Your task to perform on an android device: Add "razer blade" to the cart on walmart, then select checkout. Image 0: 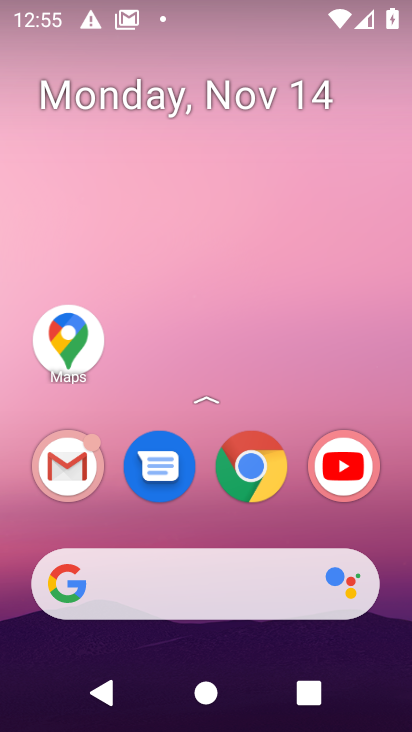
Step 0: click (259, 451)
Your task to perform on an android device: Add "razer blade" to the cart on walmart, then select checkout. Image 1: 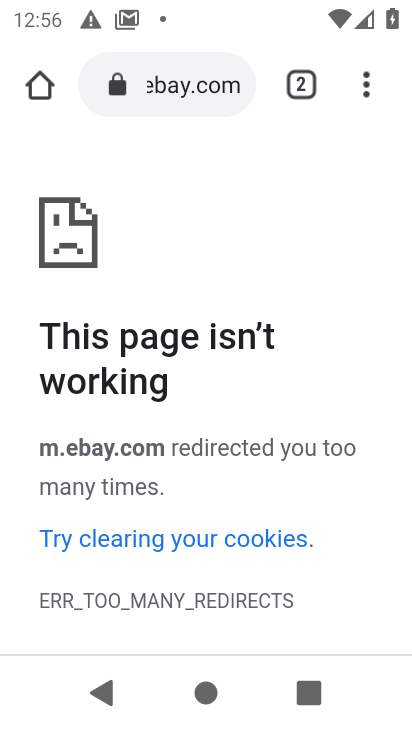
Step 1: click (215, 82)
Your task to perform on an android device: Add "razer blade" to the cart on walmart, then select checkout. Image 2: 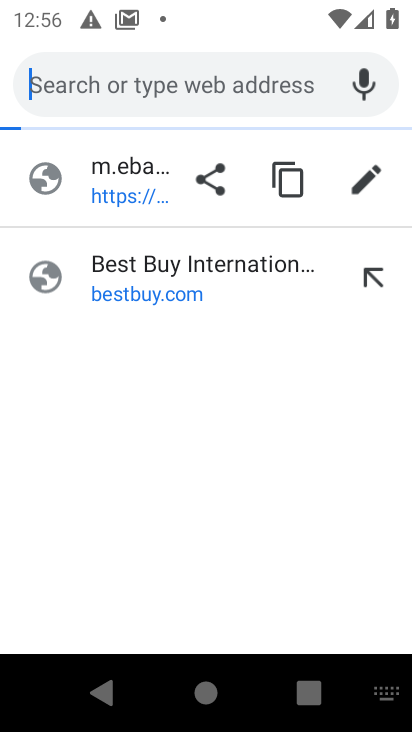
Step 2: type "walmart"
Your task to perform on an android device: Add "razer blade" to the cart on walmart, then select checkout. Image 3: 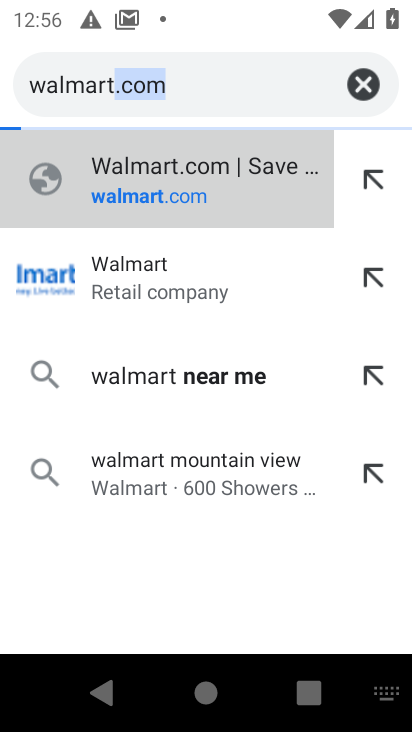
Step 3: press enter
Your task to perform on an android device: Add "razer blade" to the cart on walmart, then select checkout. Image 4: 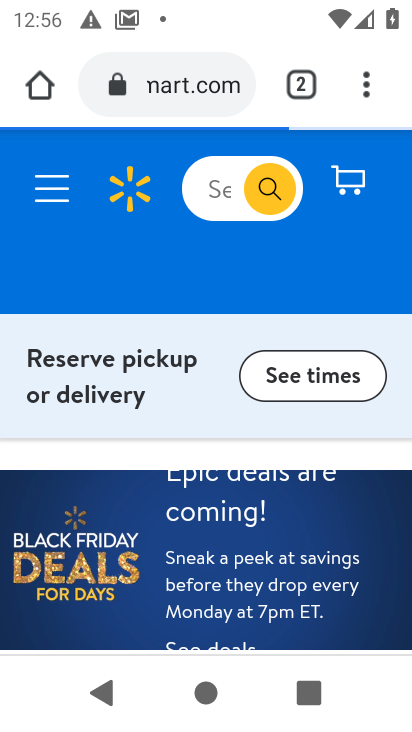
Step 4: click (218, 190)
Your task to perform on an android device: Add "razer blade" to the cart on walmart, then select checkout. Image 5: 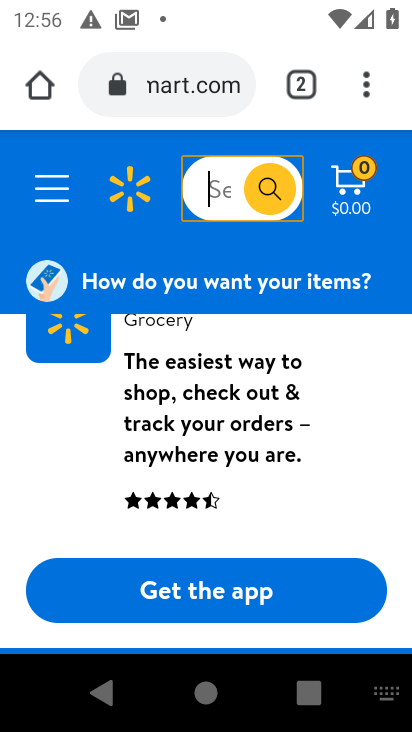
Step 5: type "razer blade"
Your task to perform on an android device: Add "razer blade" to the cart on walmart, then select checkout. Image 6: 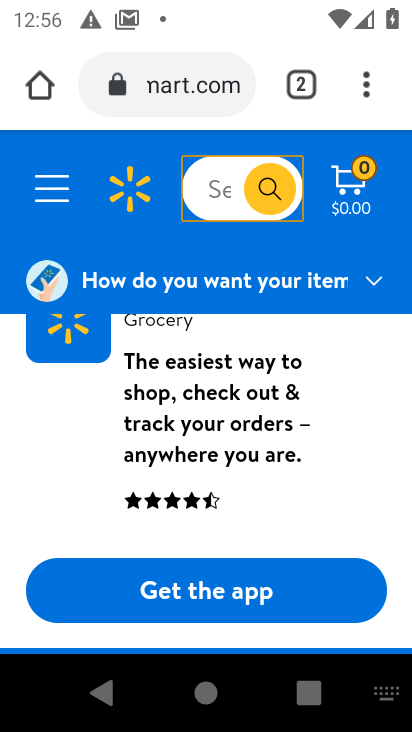
Step 6: press enter
Your task to perform on an android device: Add "razer blade" to the cart on walmart, then select checkout. Image 7: 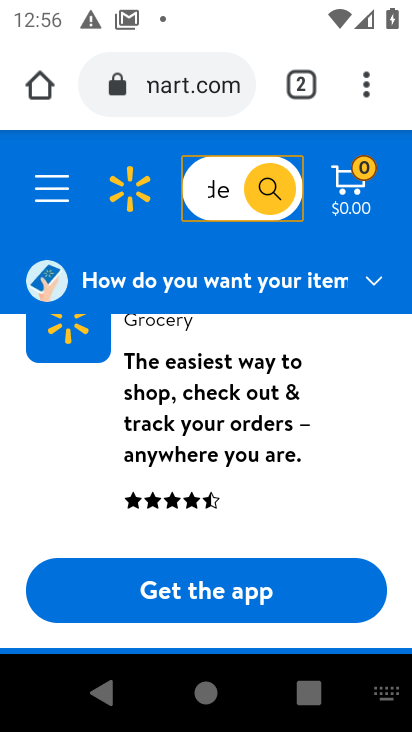
Step 7: click (280, 191)
Your task to perform on an android device: Add "razer blade" to the cart on walmart, then select checkout. Image 8: 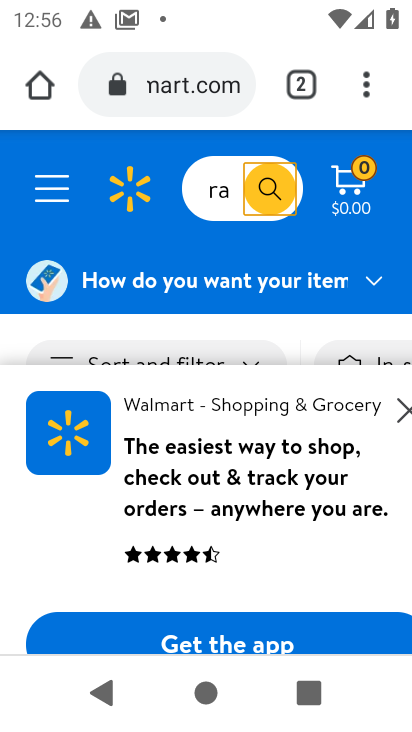
Step 8: click (403, 403)
Your task to perform on an android device: Add "razer blade" to the cart on walmart, then select checkout. Image 9: 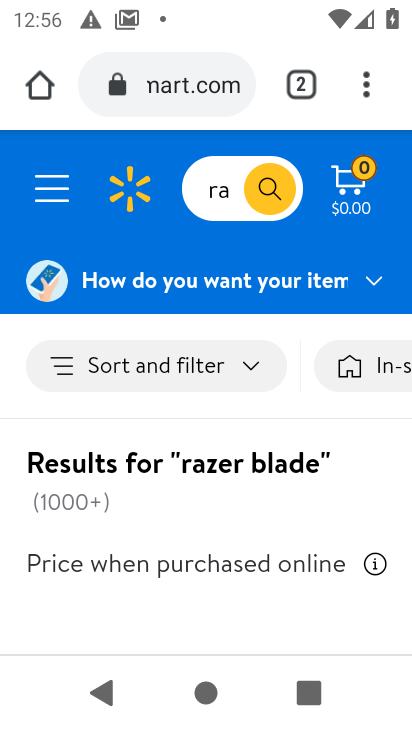
Step 9: task complete